Your task to perform on an android device: toggle data saver in the chrome app Image 0: 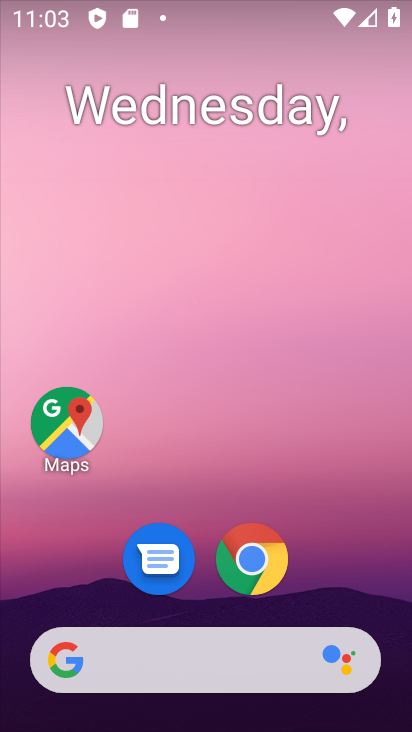
Step 0: click (264, 559)
Your task to perform on an android device: toggle data saver in the chrome app Image 1: 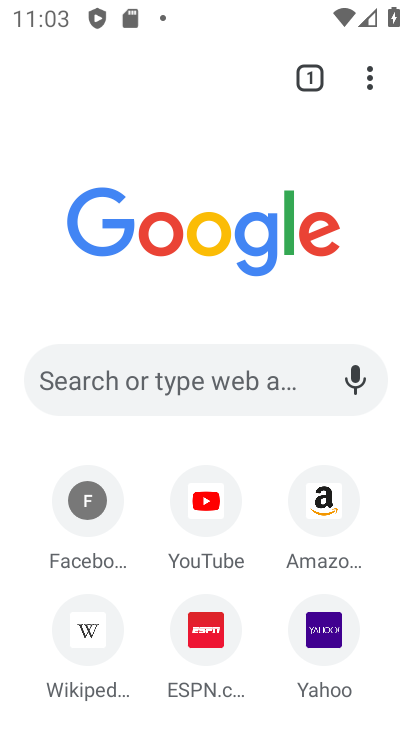
Step 1: click (364, 90)
Your task to perform on an android device: toggle data saver in the chrome app Image 2: 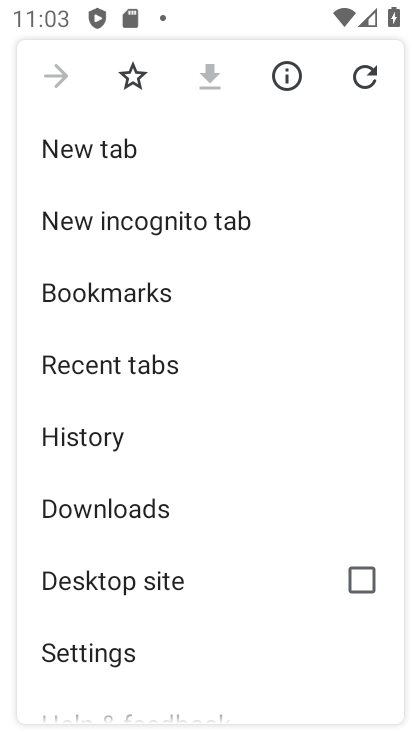
Step 2: click (177, 645)
Your task to perform on an android device: toggle data saver in the chrome app Image 3: 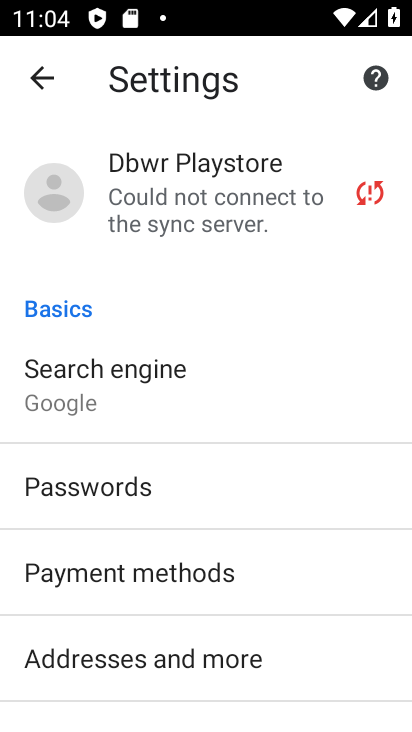
Step 3: drag from (191, 701) to (186, 110)
Your task to perform on an android device: toggle data saver in the chrome app Image 4: 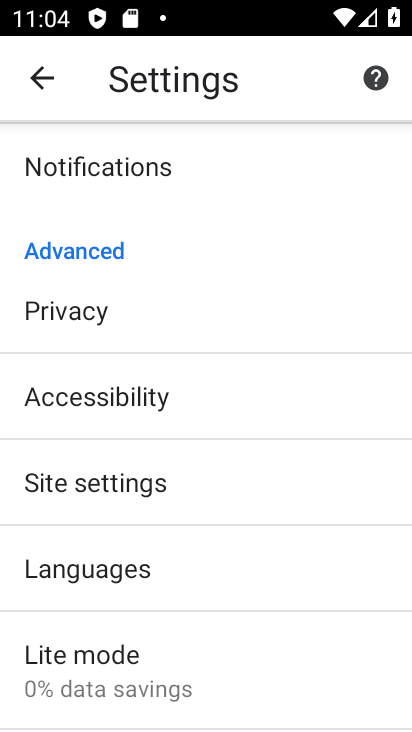
Step 4: click (128, 661)
Your task to perform on an android device: toggle data saver in the chrome app Image 5: 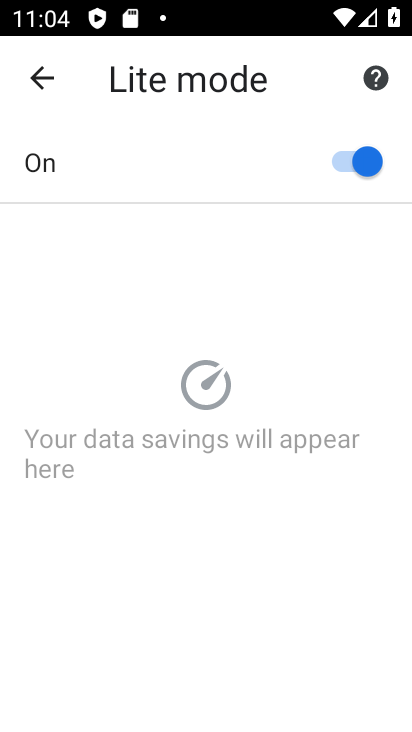
Step 5: click (363, 157)
Your task to perform on an android device: toggle data saver in the chrome app Image 6: 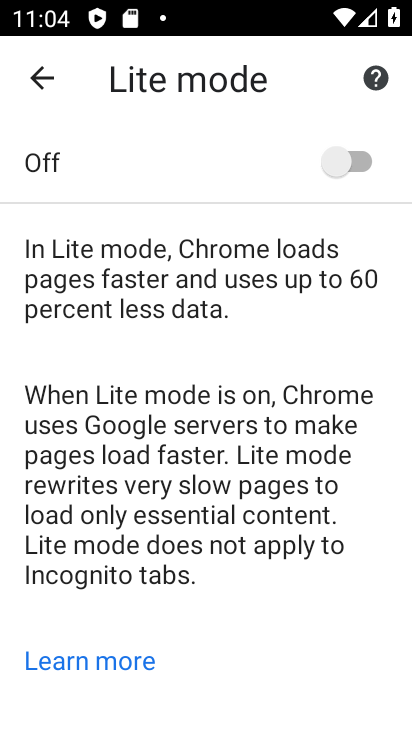
Step 6: task complete